Your task to perform on an android device: turn on sleep mode Image 0: 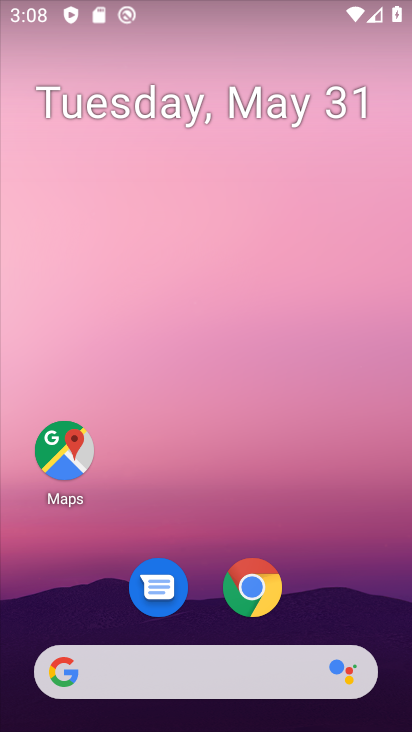
Step 0: drag from (320, 595) to (314, 0)
Your task to perform on an android device: turn on sleep mode Image 1: 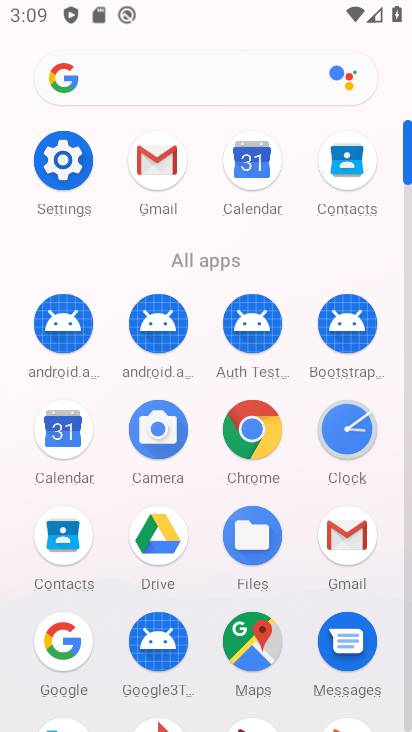
Step 1: click (77, 161)
Your task to perform on an android device: turn on sleep mode Image 2: 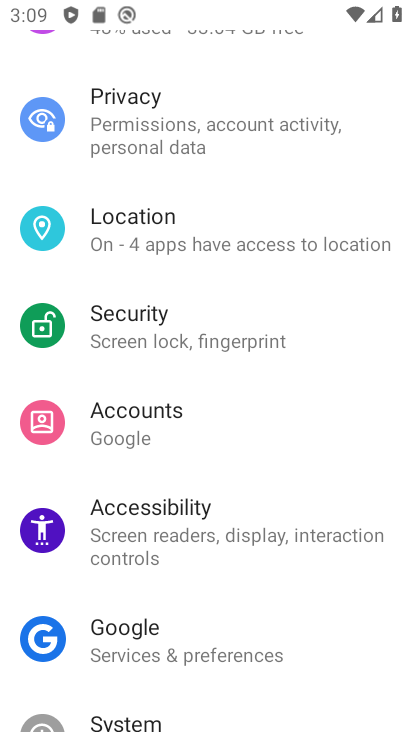
Step 2: drag from (91, 414) to (151, 642)
Your task to perform on an android device: turn on sleep mode Image 3: 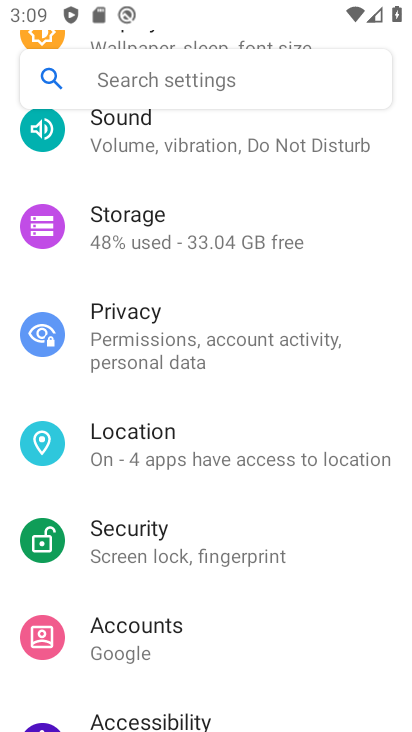
Step 3: drag from (236, 343) to (249, 569)
Your task to perform on an android device: turn on sleep mode Image 4: 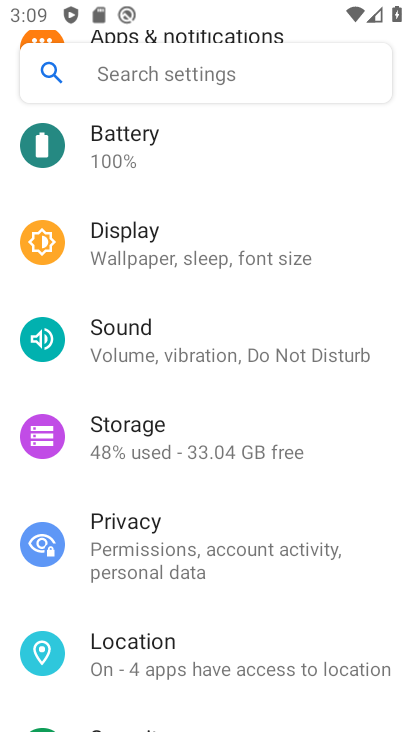
Step 4: drag from (237, 343) to (243, 554)
Your task to perform on an android device: turn on sleep mode Image 5: 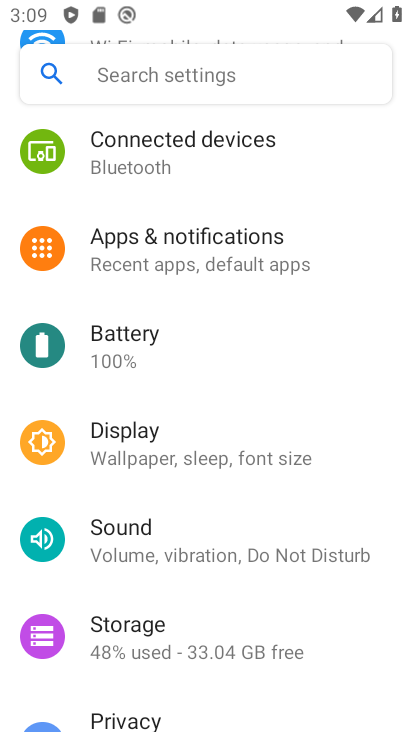
Step 5: drag from (228, 322) to (225, 624)
Your task to perform on an android device: turn on sleep mode Image 6: 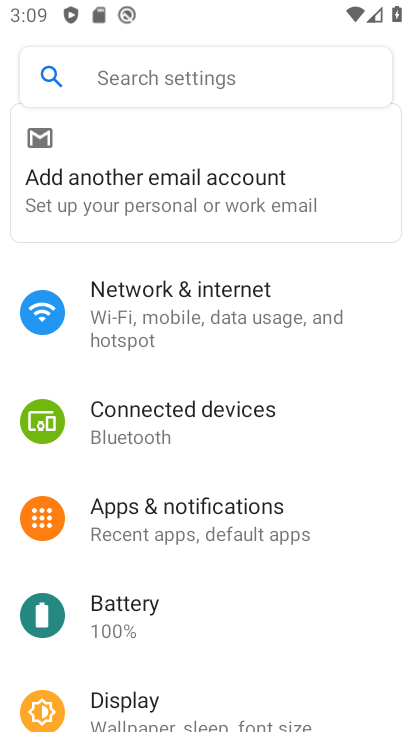
Step 6: click (150, 705)
Your task to perform on an android device: turn on sleep mode Image 7: 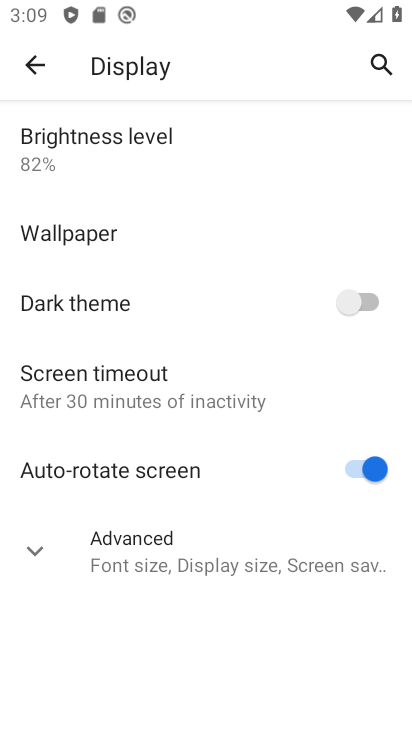
Step 7: click (166, 572)
Your task to perform on an android device: turn on sleep mode Image 8: 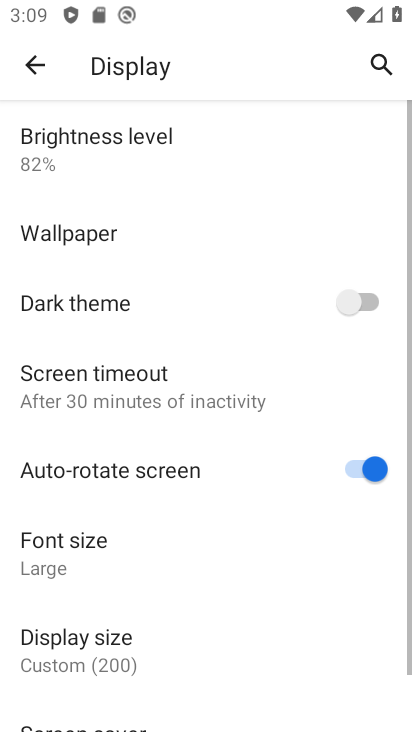
Step 8: task complete